Your task to perform on an android device: Open location settings Image 0: 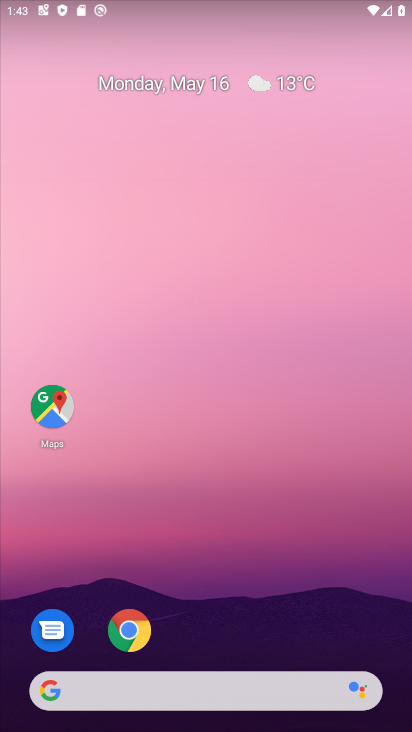
Step 0: drag from (275, 531) to (275, 1)
Your task to perform on an android device: Open location settings Image 1: 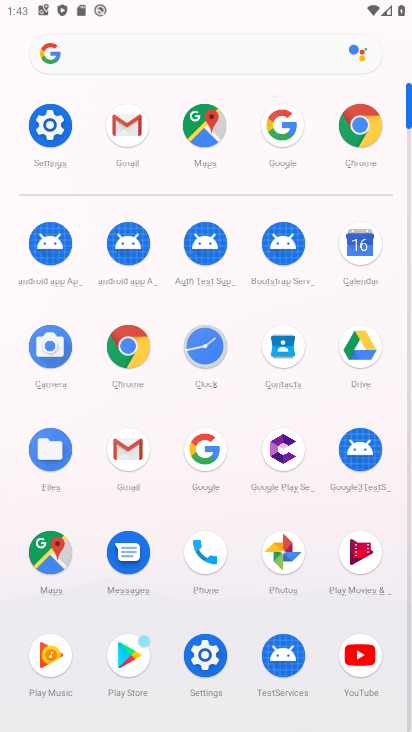
Step 1: click (51, 118)
Your task to perform on an android device: Open location settings Image 2: 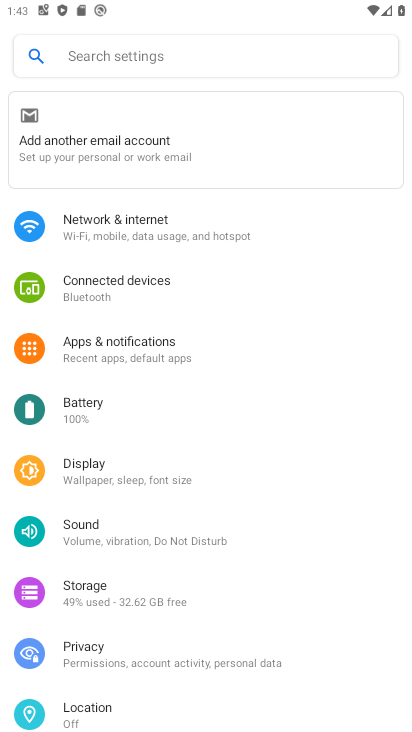
Step 2: click (113, 701)
Your task to perform on an android device: Open location settings Image 3: 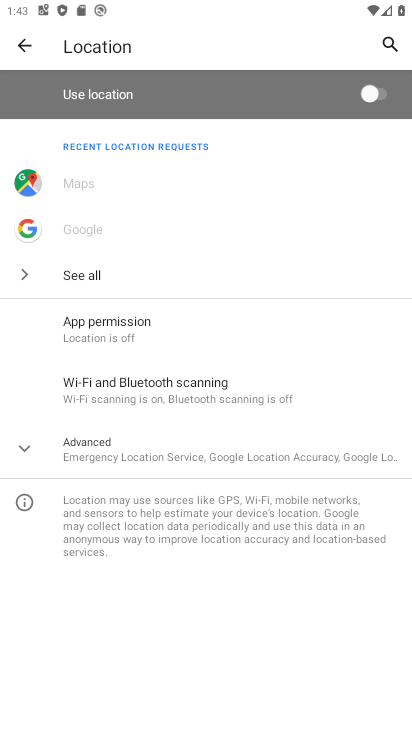
Step 3: task complete